Your task to perform on an android device: turn vacation reply on in the gmail app Image 0: 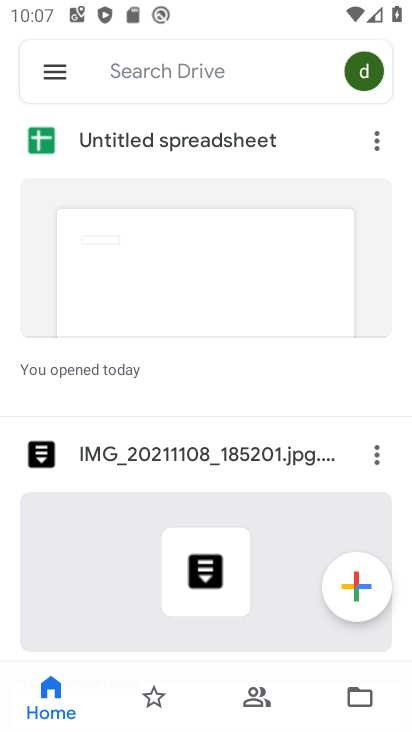
Step 0: press home button
Your task to perform on an android device: turn vacation reply on in the gmail app Image 1: 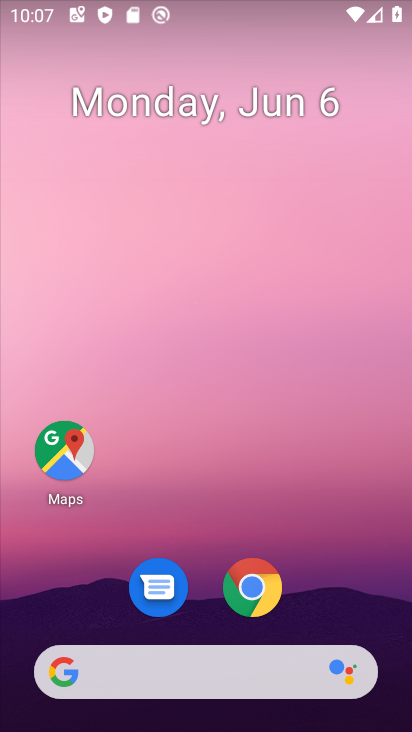
Step 1: drag from (149, 719) to (384, 347)
Your task to perform on an android device: turn vacation reply on in the gmail app Image 2: 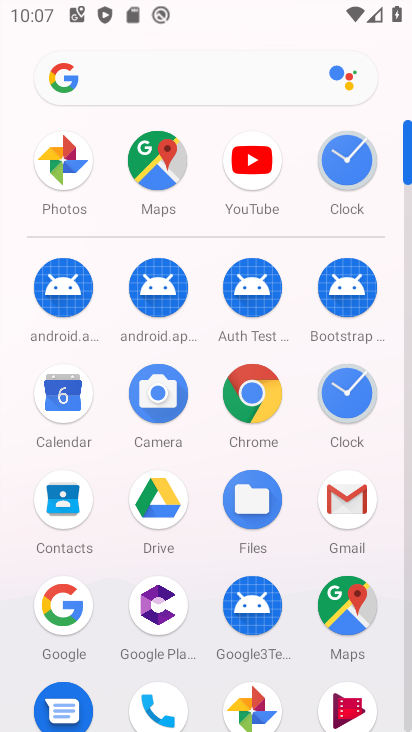
Step 2: click (348, 504)
Your task to perform on an android device: turn vacation reply on in the gmail app Image 3: 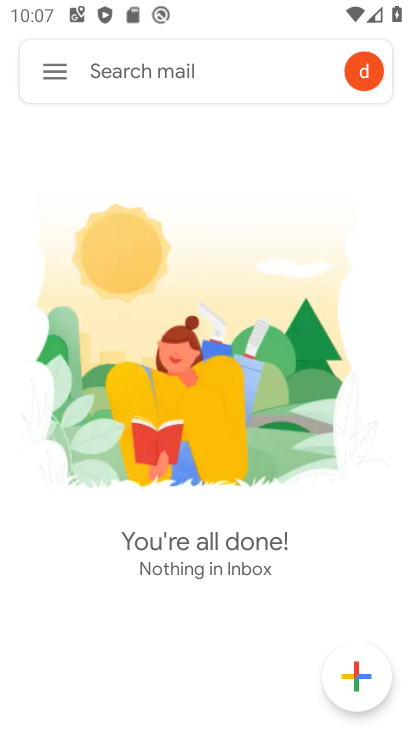
Step 3: click (49, 76)
Your task to perform on an android device: turn vacation reply on in the gmail app Image 4: 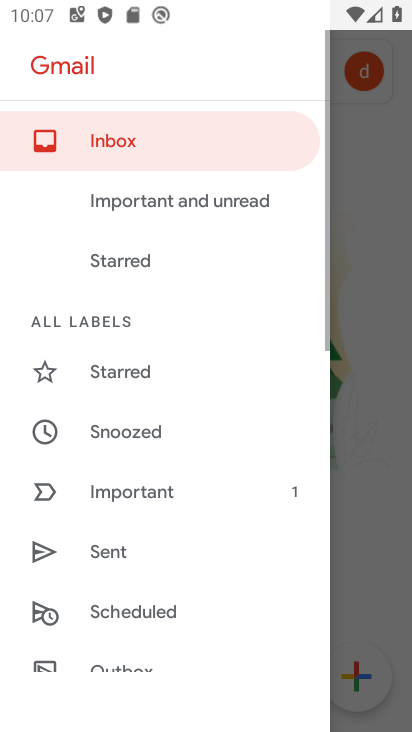
Step 4: drag from (164, 506) to (324, 140)
Your task to perform on an android device: turn vacation reply on in the gmail app Image 5: 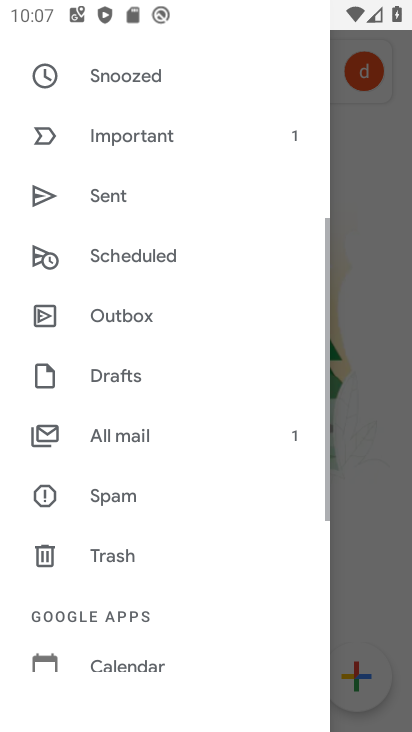
Step 5: drag from (200, 530) to (286, 22)
Your task to perform on an android device: turn vacation reply on in the gmail app Image 6: 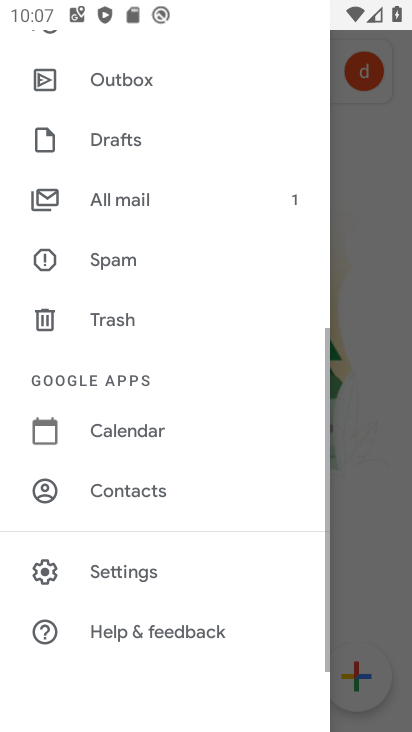
Step 6: click (158, 576)
Your task to perform on an android device: turn vacation reply on in the gmail app Image 7: 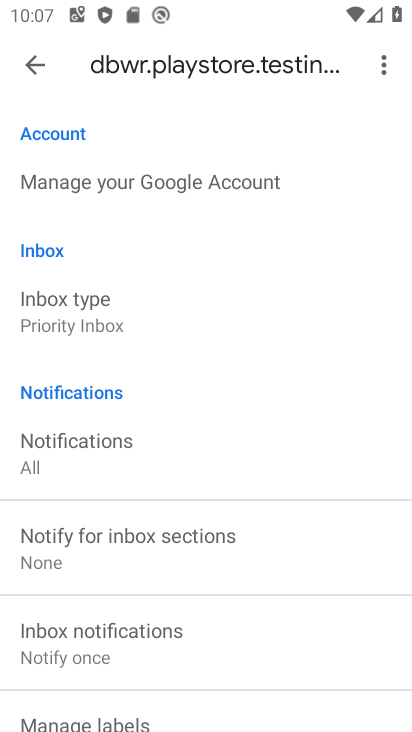
Step 7: drag from (27, 284) to (212, 25)
Your task to perform on an android device: turn vacation reply on in the gmail app Image 8: 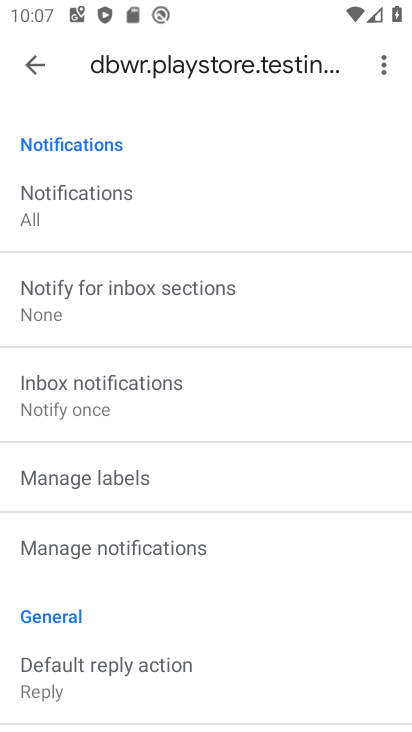
Step 8: drag from (220, 684) to (250, 102)
Your task to perform on an android device: turn vacation reply on in the gmail app Image 9: 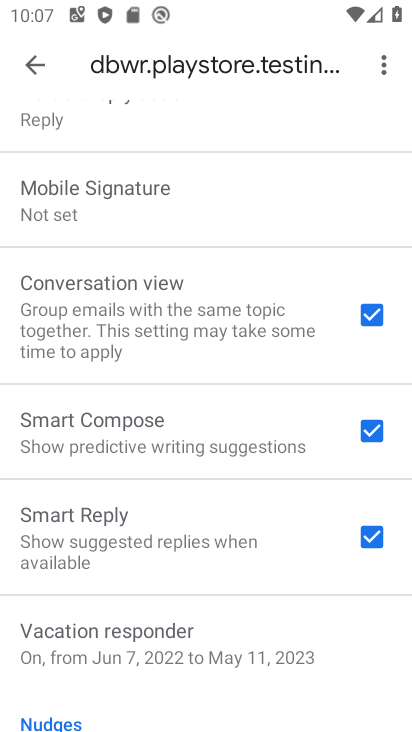
Step 9: click (176, 653)
Your task to perform on an android device: turn vacation reply on in the gmail app Image 10: 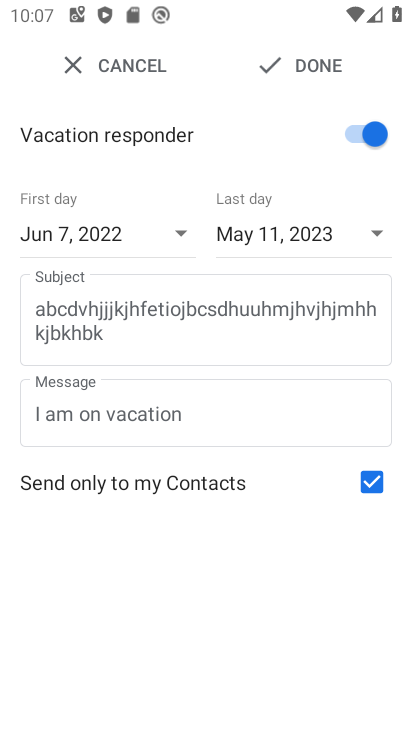
Step 10: click (307, 48)
Your task to perform on an android device: turn vacation reply on in the gmail app Image 11: 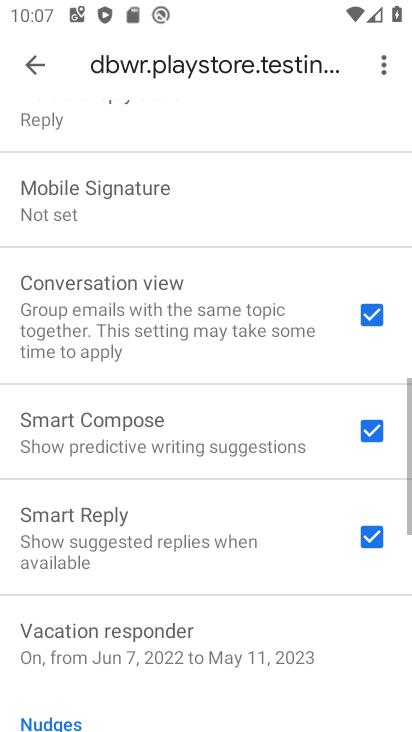
Step 11: task complete